Your task to perform on an android device: see sites visited before in the chrome app Image 0: 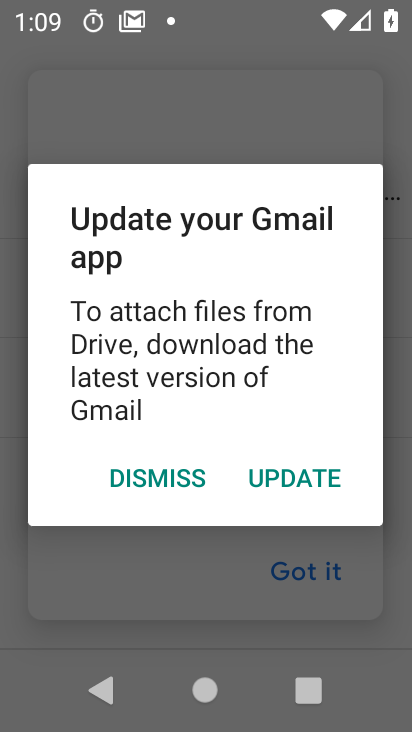
Step 0: click (149, 468)
Your task to perform on an android device: see sites visited before in the chrome app Image 1: 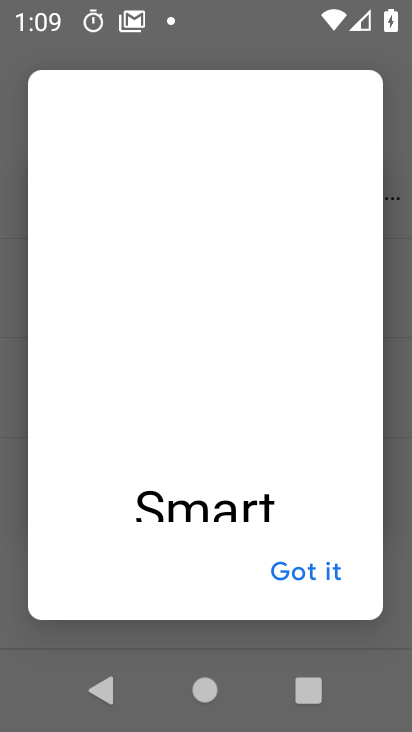
Step 1: click (306, 562)
Your task to perform on an android device: see sites visited before in the chrome app Image 2: 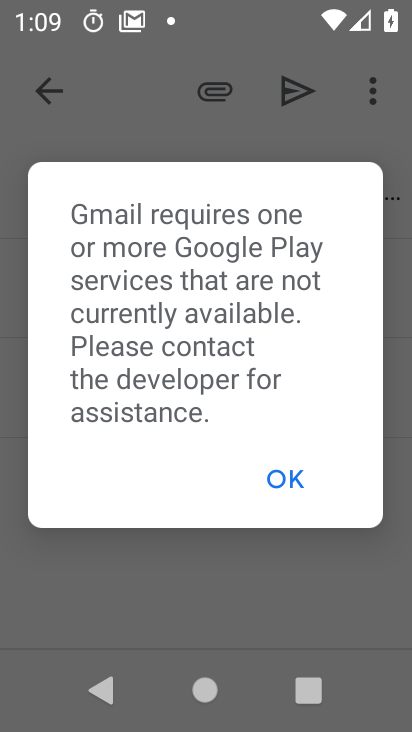
Step 2: click (305, 482)
Your task to perform on an android device: see sites visited before in the chrome app Image 3: 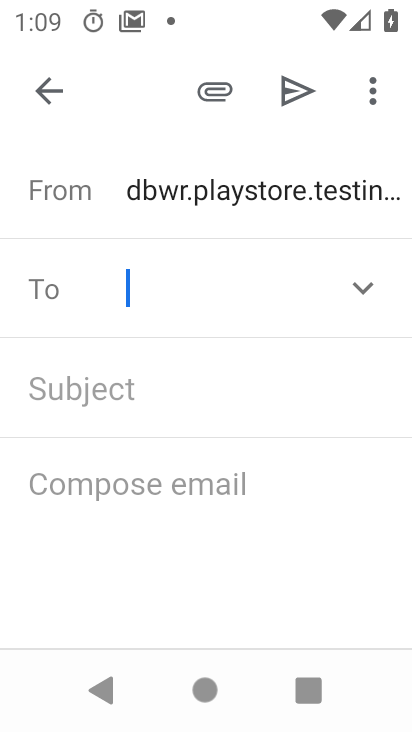
Step 3: click (41, 90)
Your task to perform on an android device: see sites visited before in the chrome app Image 4: 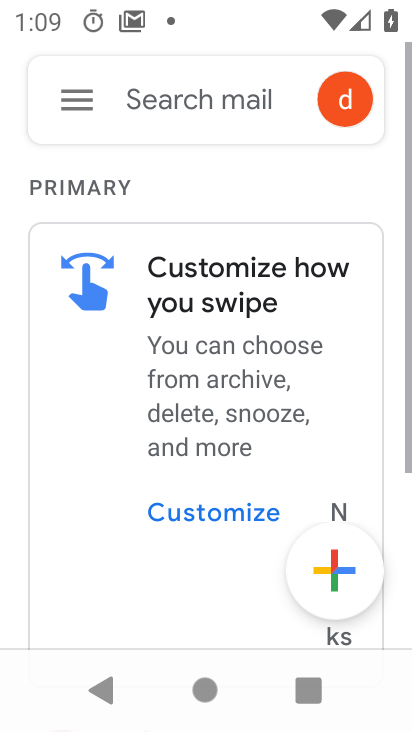
Step 4: press home button
Your task to perform on an android device: see sites visited before in the chrome app Image 5: 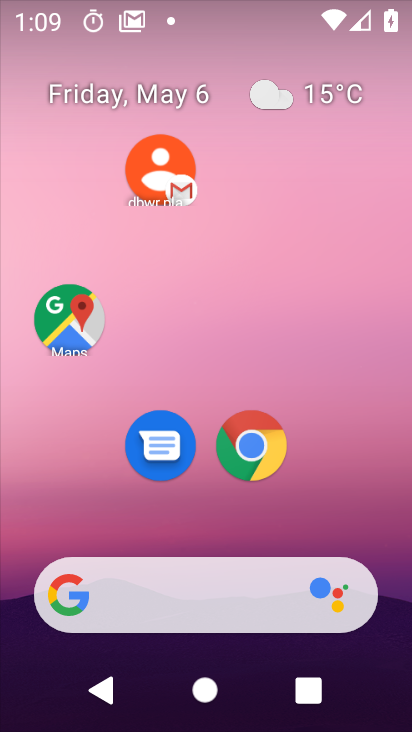
Step 5: drag from (341, 530) to (95, 74)
Your task to perform on an android device: see sites visited before in the chrome app Image 6: 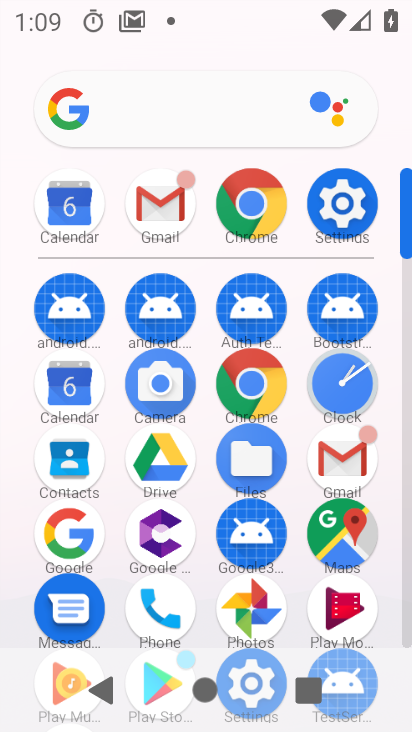
Step 6: click (244, 198)
Your task to perform on an android device: see sites visited before in the chrome app Image 7: 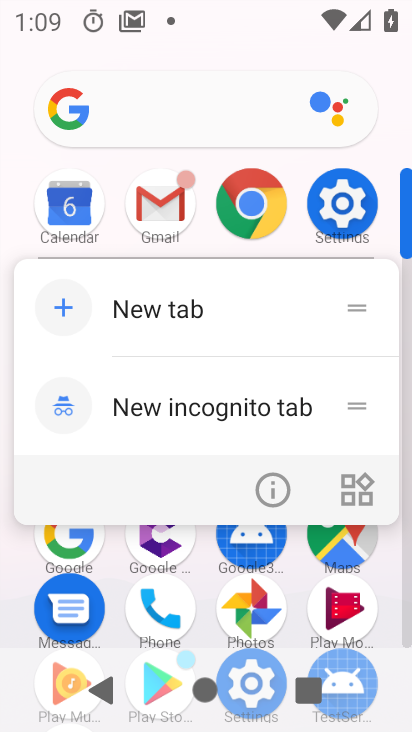
Step 7: click (159, 308)
Your task to perform on an android device: see sites visited before in the chrome app Image 8: 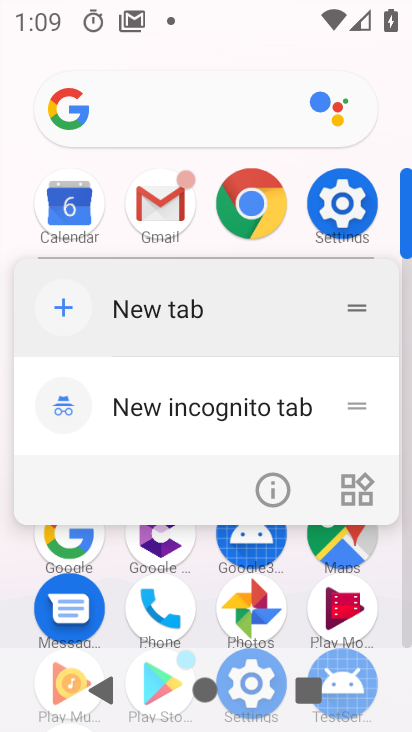
Step 8: click (159, 308)
Your task to perform on an android device: see sites visited before in the chrome app Image 9: 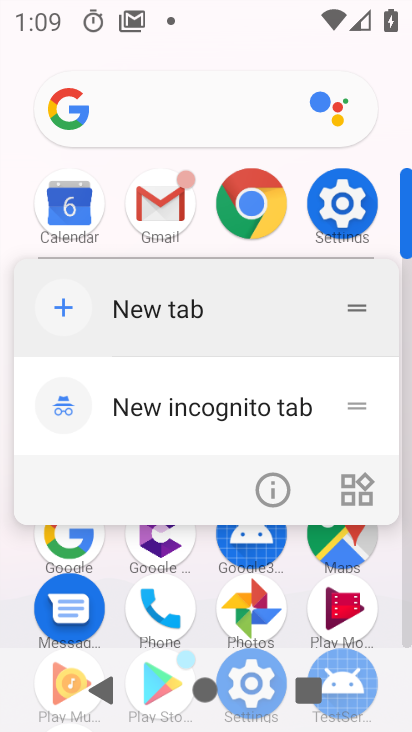
Step 9: click (159, 308)
Your task to perform on an android device: see sites visited before in the chrome app Image 10: 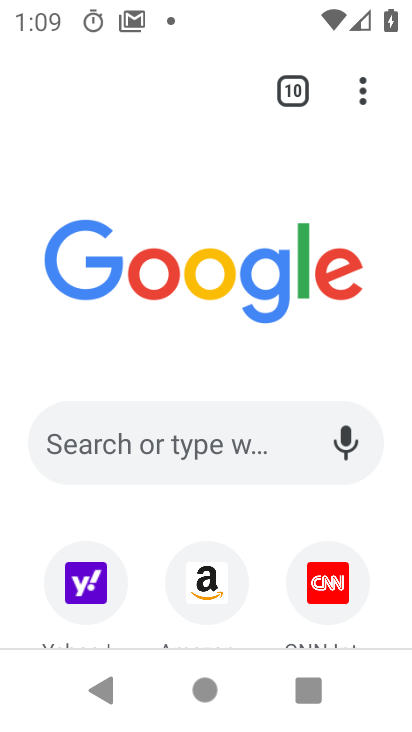
Step 10: drag from (362, 93) to (104, 396)
Your task to perform on an android device: see sites visited before in the chrome app Image 11: 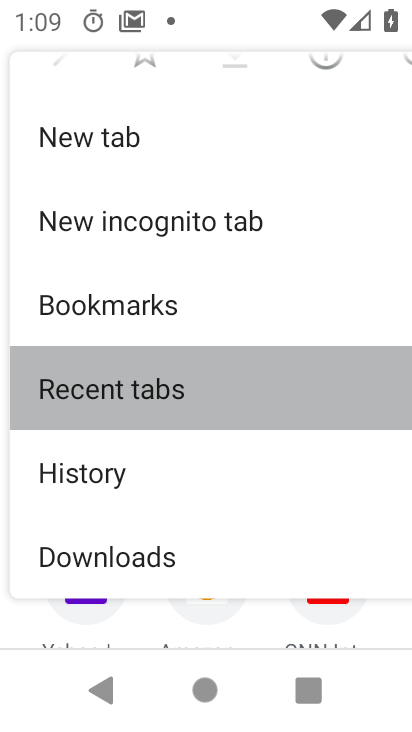
Step 11: click (104, 396)
Your task to perform on an android device: see sites visited before in the chrome app Image 12: 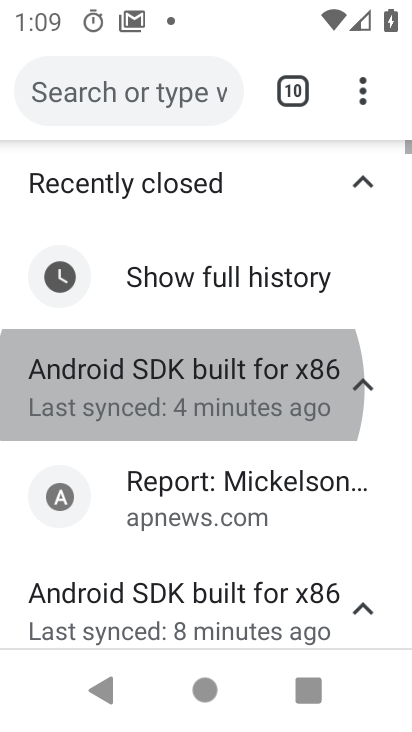
Step 12: click (104, 396)
Your task to perform on an android device: see sites visited before in the chrome app Image 13: 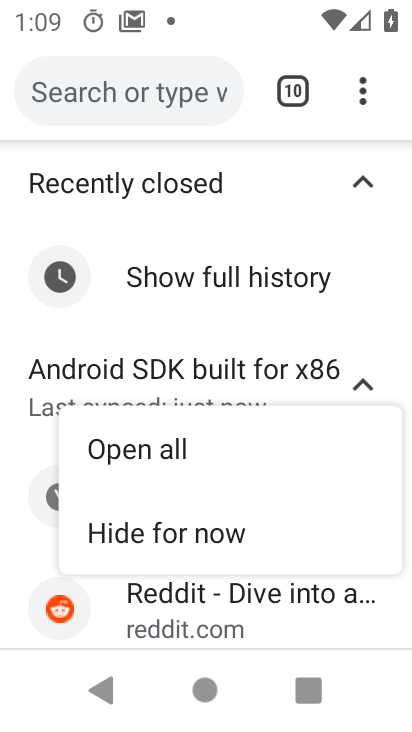
Step 13: task complete